Your task to perform on an android device: Open Google Maps and go to "Timeline" Image 0: 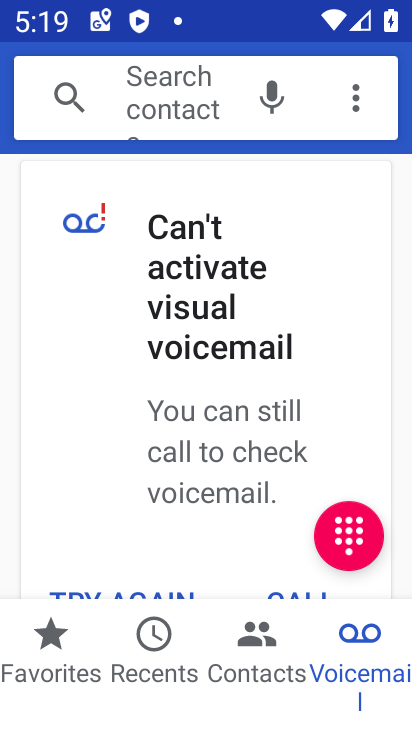
Step 0: press home button
Your task to perform on an android device: Open Google Maps and go to "Timeline" Image 1: 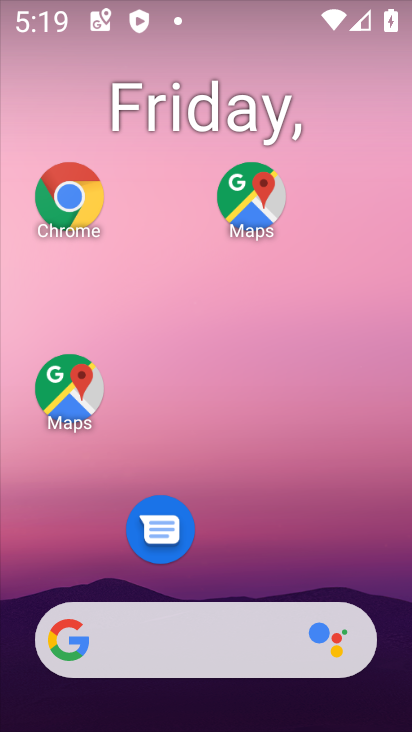
Step 1: click (74, 399)
Your task to perform on an android device: Open Google Maps and go to "Timeline" Image 2: 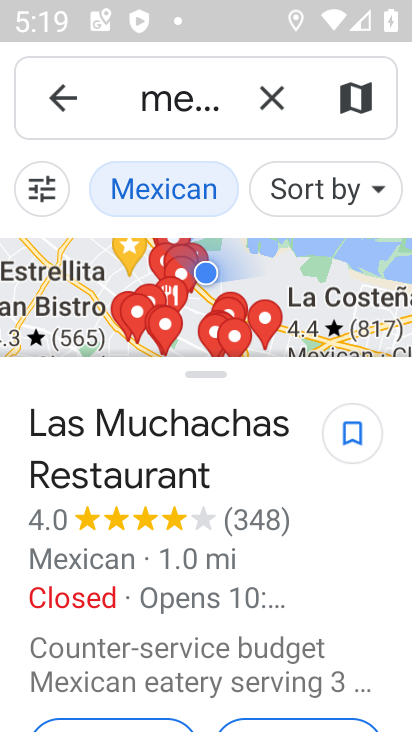
Step 2: click (273, 98)
Your task to perform on an android device: Open Google Maps and go to "Timeline" Image 3: 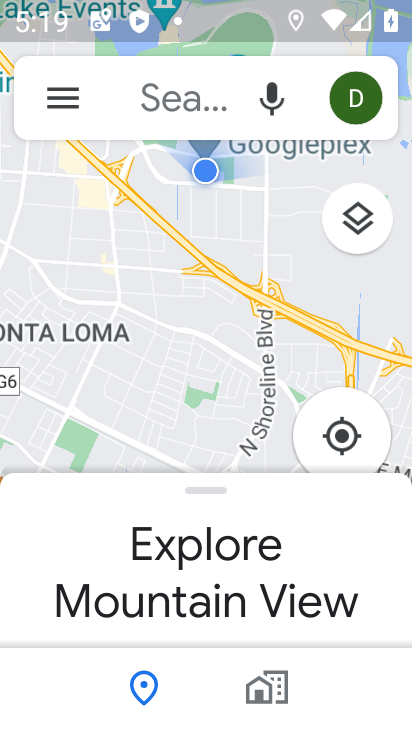
Step 3: click (56, 103)
Your task to perform on an android device: Open Google Maps and go to "Timeline" Image 4: 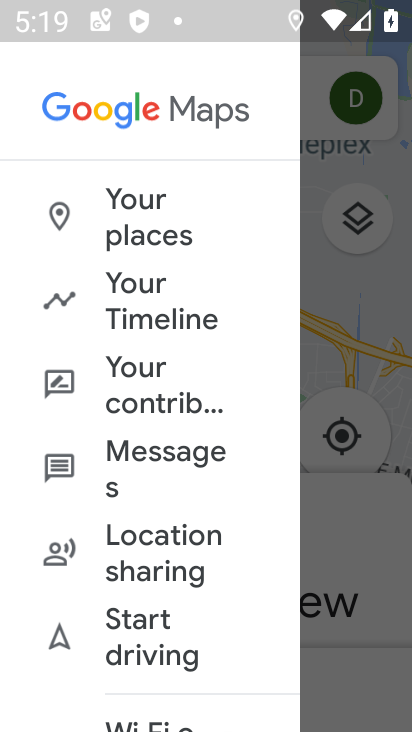
Step 4: click (158, 314)
Your task to perform on an android device: Open Google Maps and go to "Timeline" Image 5: 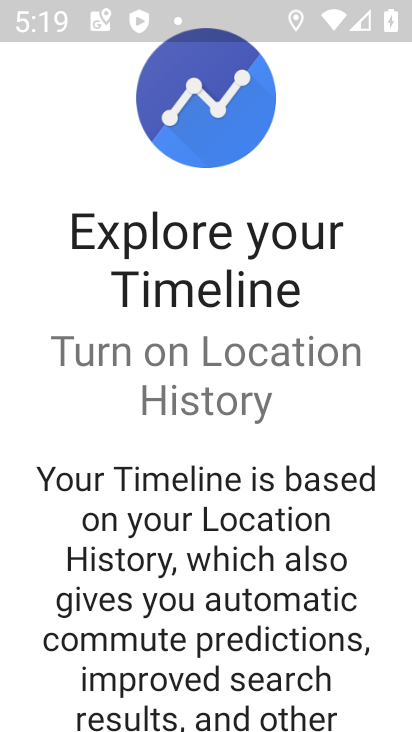
Step 5: drag from (288, 600) to (335, 279)
Your task to perform on an android device: Open Google Maps and go to "Timeline" Image 6: 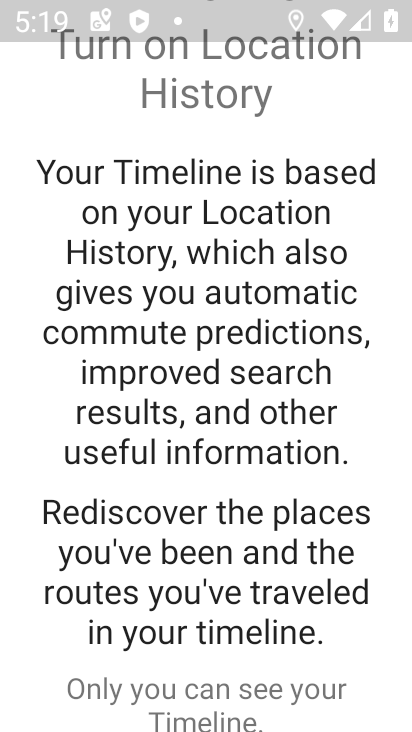
Step 6: drag from (288, 687) to (296, 420)
Your task to perform on an android device: Open Google Maps and go to "Timeline" Image 7: 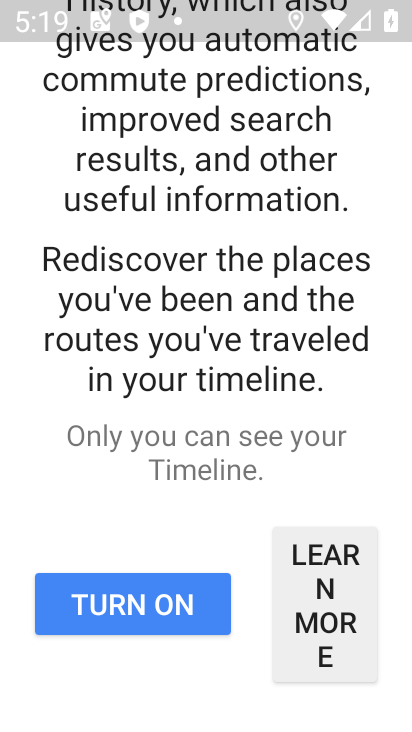
Step 7: drag from (173, 668) to (260, 392)
Your task to perform on an android device: Open Google Maps and go to "Timeline" Image 8: 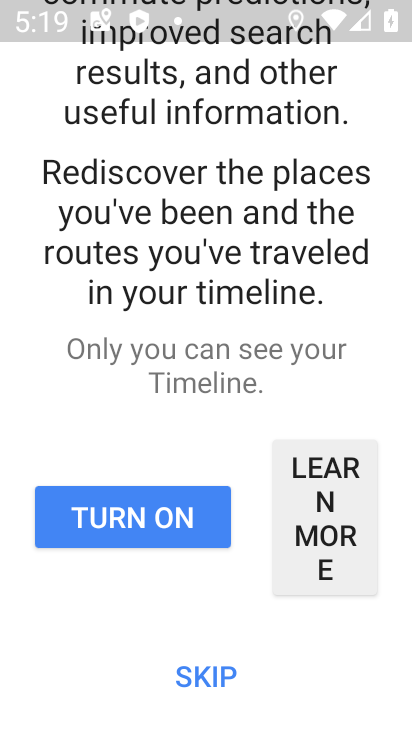
Step 8: click (196, 690)
Your task to perform on an android device: Open Google Maps and go to "Timeline" Image 9: 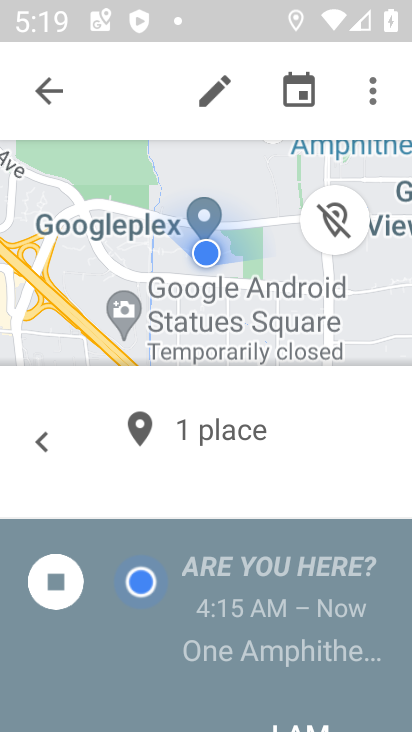
Step 9: task complete